Your task to perform on an android device: Open Yahoo.com Image 0: 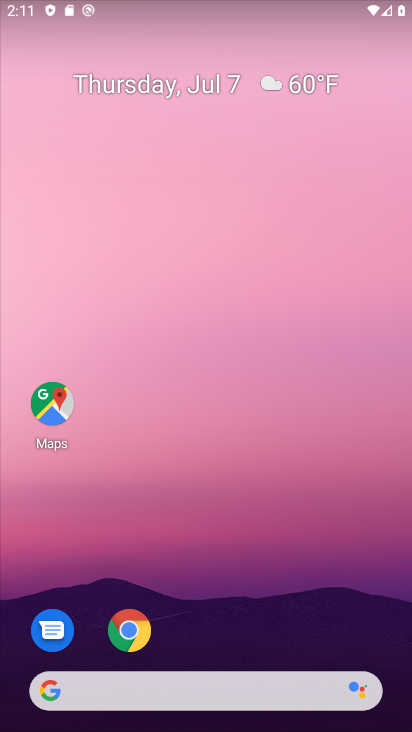
Step 0: drag from (168, 260) to (164, 105)
Your task to perform on an android device: Open Yahoo.com Image 1: 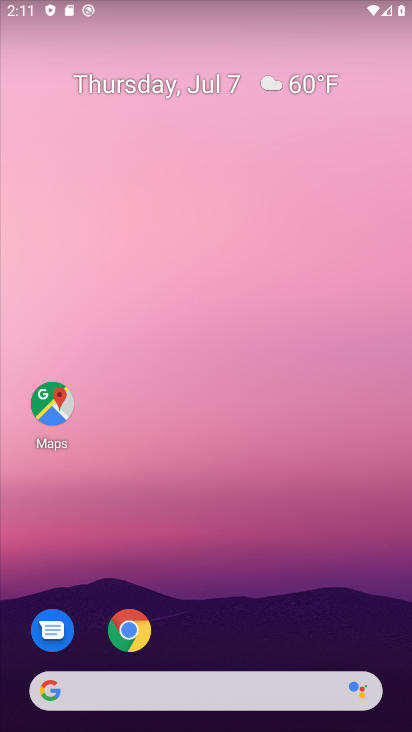
Step 1: drag from (212, 719) to (109, 51)
Your task to perform on an android device: Open Yahoo.com Image 2: 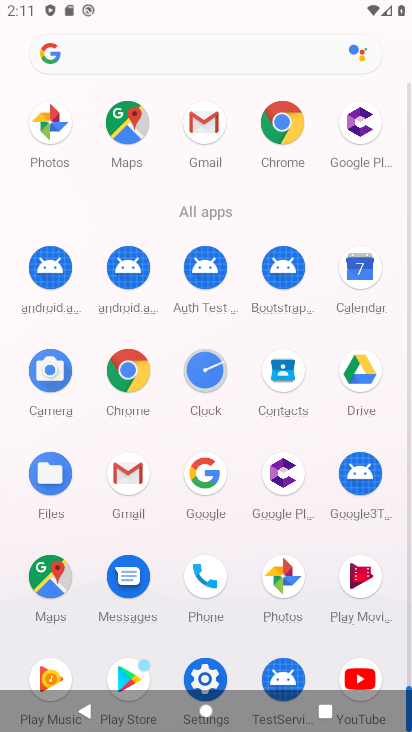
Step 2: click (287, 125)
Your task to perform on an android device: Open Yahoo.com Image 3: 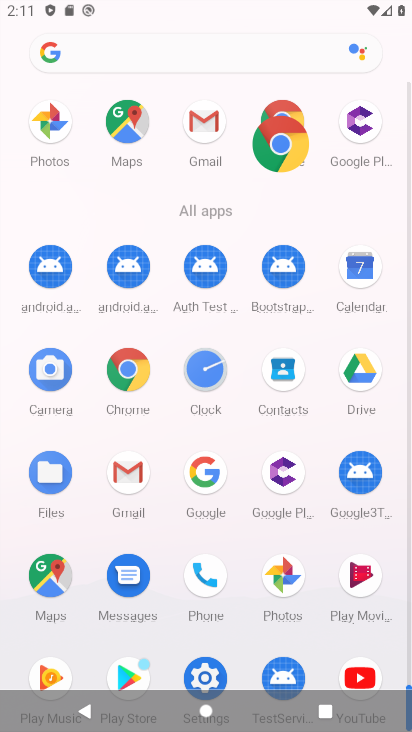
Step 3: click (287, 125)
Your task to perform on an android device: Open Yahoo.com Image 4: 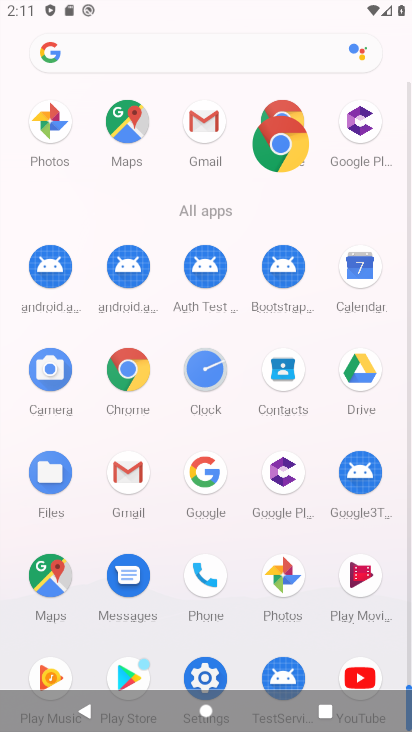
Step 4: click (288, 124)
Your task to perform on an android device: Open Yahoo.com Image 5: 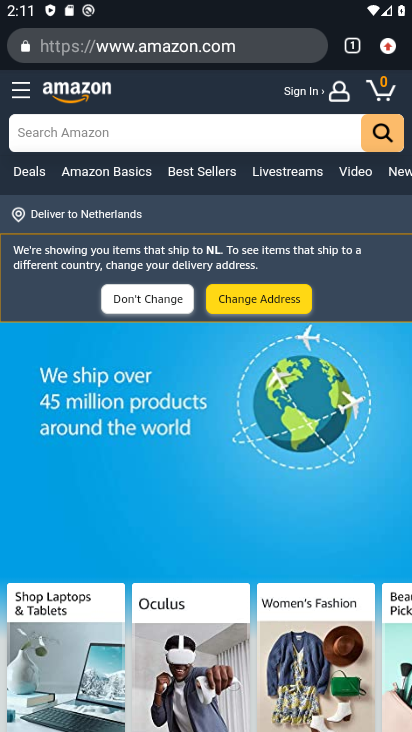
Step 5: click (28, 80)
Your task to perform on an android device: Open Yahoo.com Image 6: 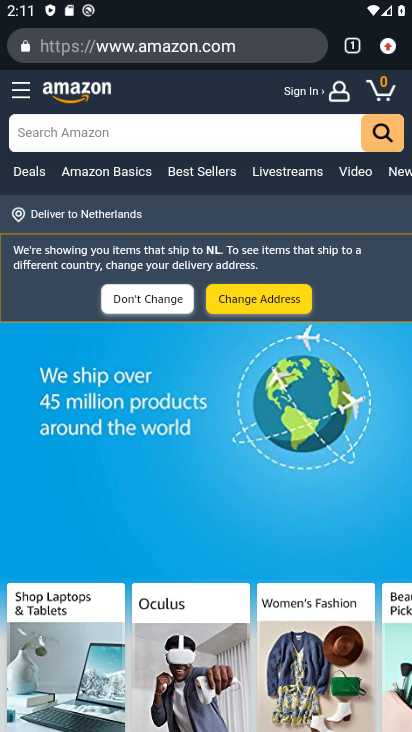
Step 6: click (27, 81)
Your task to perform on an android device: Open Yahoo.com Image 7: 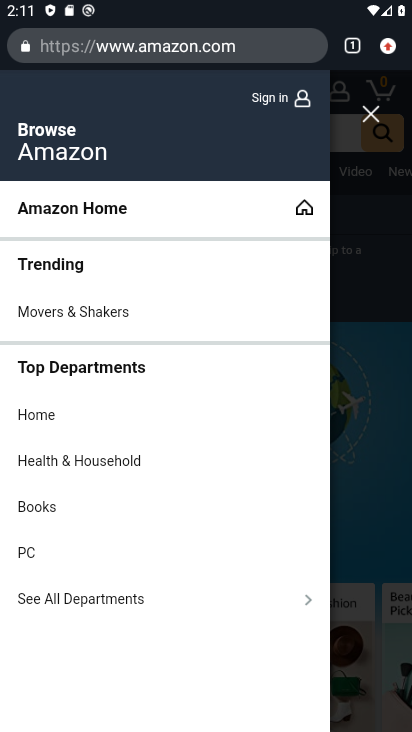
Step 7: drag from (371, 73) to (355, 693)
Your task to perform on an android device: Open Yahoo.com Image 8: 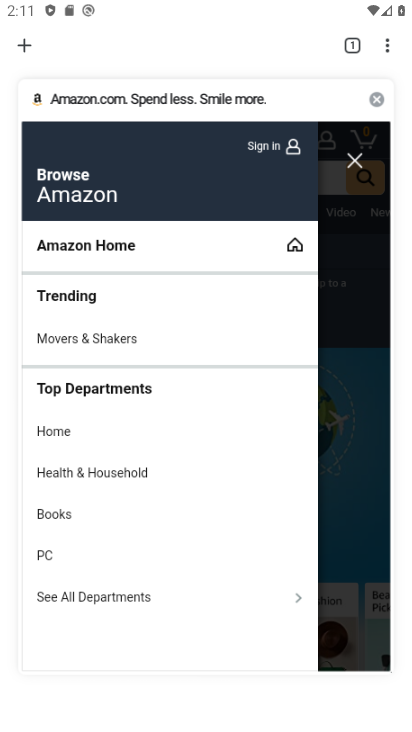
Step 8: click (354, 170)
Your task to perform on an android device: Open Yahoo.com Image 9: 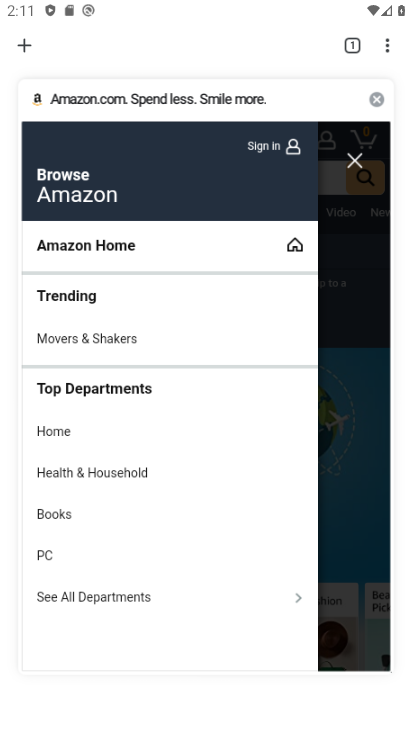
Step 9: click (353, 169)
Your task to perform on an android device: Open Yahoo.com Image 10: 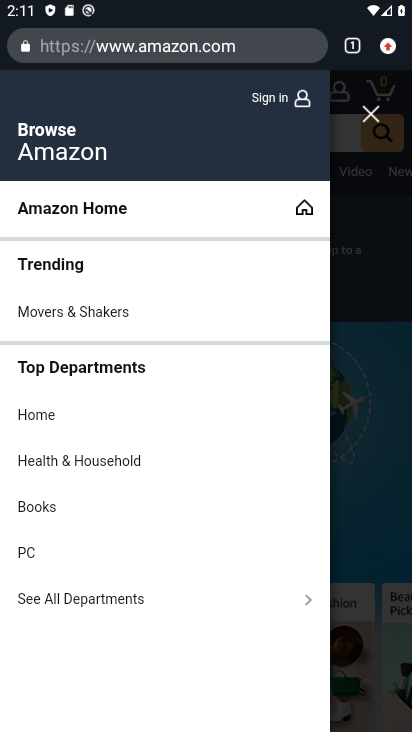
Step 10: click (362, 117)
Your task to perform on an android device: Open Yahoo.com Image 11: 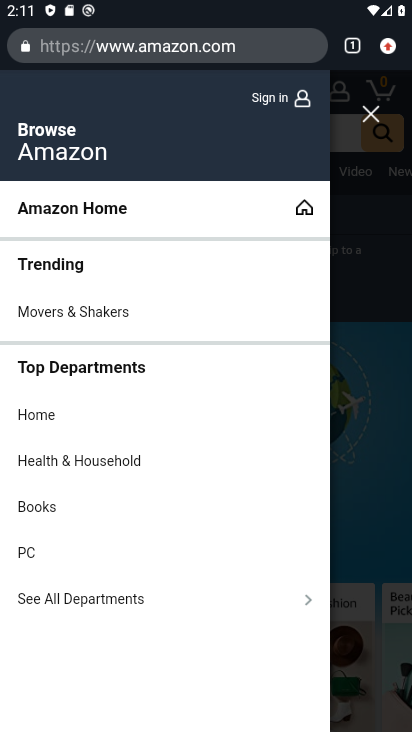
Step 11: click (363, 116)
Your task to perform on an android device: Open Yahoo.com Image 12: 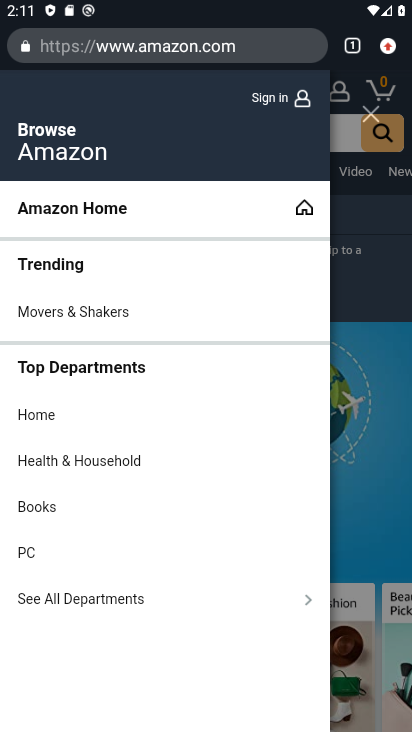
Step 12: click (364, 116)
Your task to perform on an android device: Open Yahoo.com Image 13: 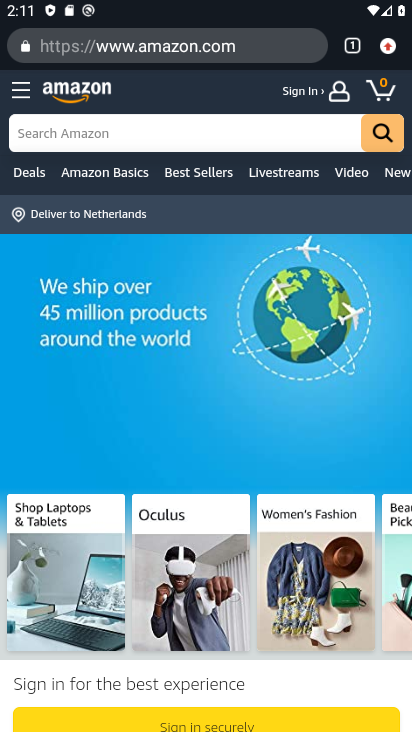
Step 13: click (389, 40)
Your task to perform on an android device: Open Yahoo.com Image 14: 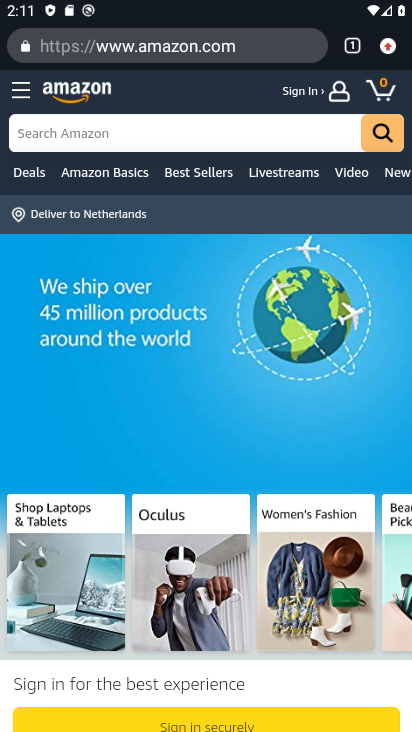
Step 14: click (388, 39)
Your task to perform on an android device: Open Yahoo.com Image 15: 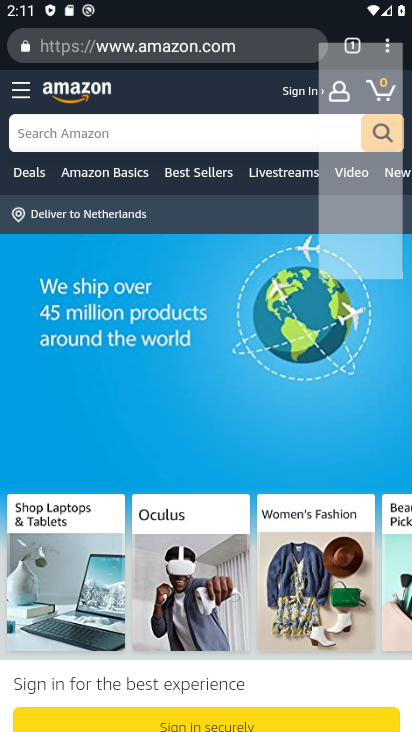
Step 15: click (387, 39)
Your task to perform on an android device: Open Yahoo.com Image 16: 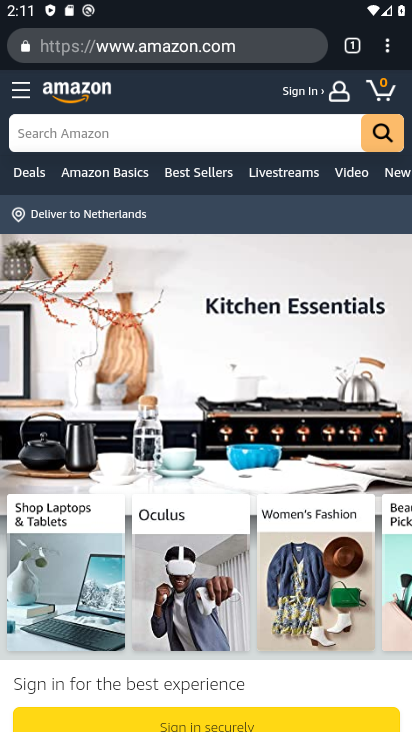
Step 16: click (387, 42)
Your task to perform on an android device: Open Yahoo.com Image 17: 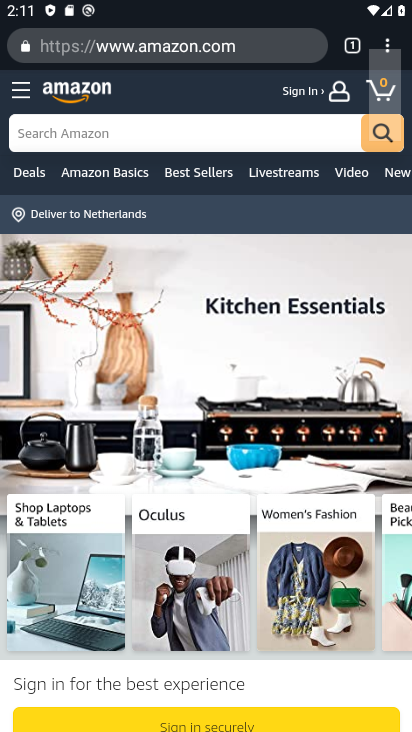
Step 17: click (394, 35)
Your task to perform on an android device: Open Yahoo.com Image 18: 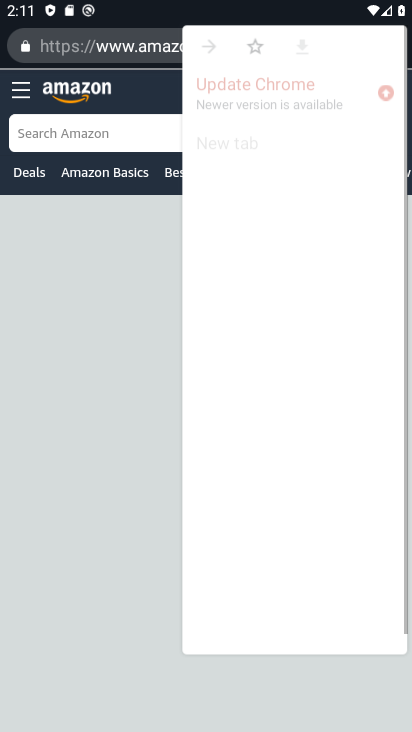
Step 18: click (394, 35)
Your task to perform on an android device: Open Yahoo.com Image 19: 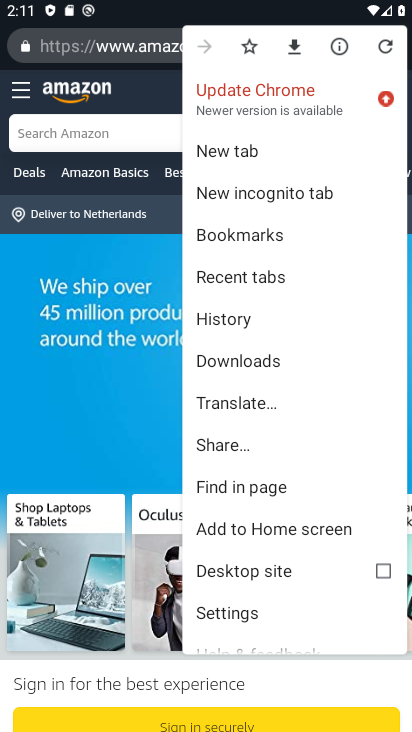
Step 19: click (237, 157)
Your task to perform on an android device: Open Yahoo.com Image 20: 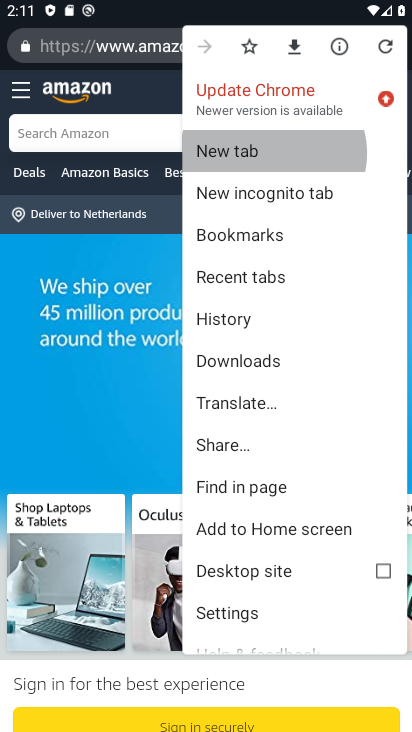
Step 20: click (237, 157)
Your task to perform on an android device: Open Yahoo.com Image 21: 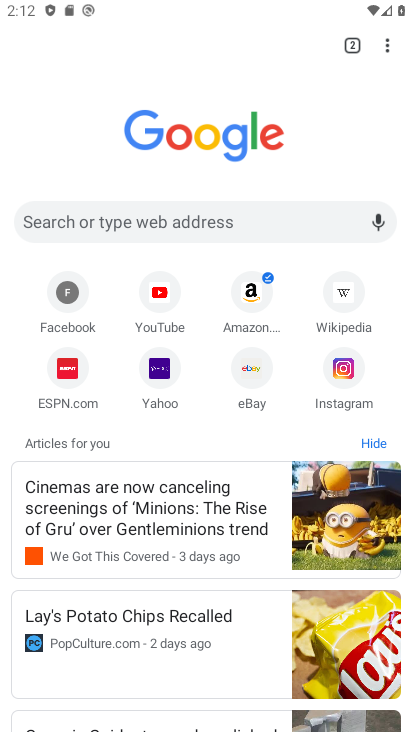
Step 21: click (162, 371)
Your task to perform on an android device: Open Yahoo.com Image 22: 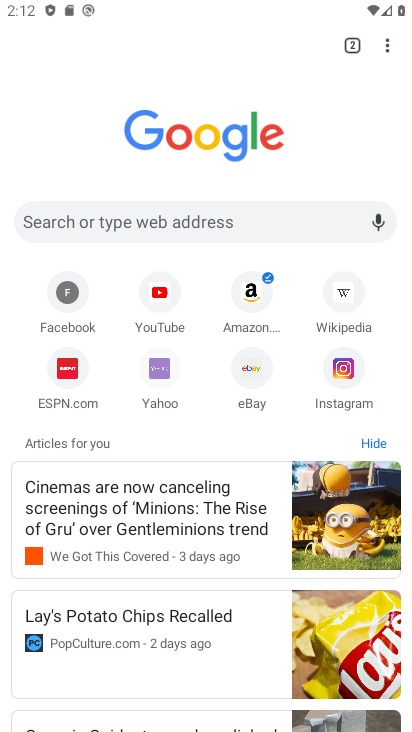
Step 22: click (162, 371)
Your task to perform on an android device: Open Yahoo.com Image 23: 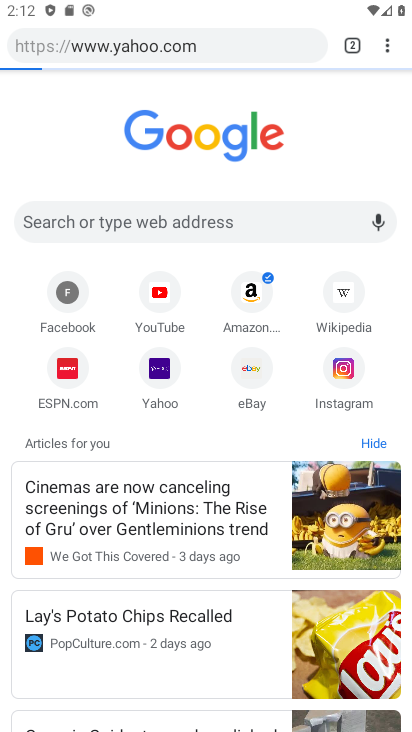
Step 23: click (162, 371)
Your task to perform on an android device: Open Yahoo.com Image 24: 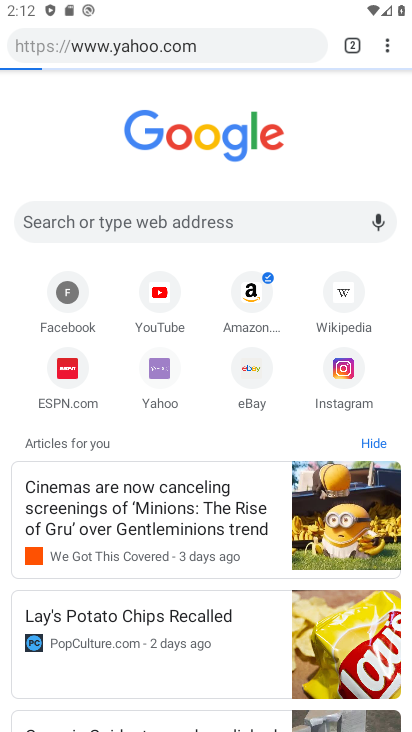
Step 24: click (164, 374)
Your task to perform on an android device: Open Yahoo.com Image 25: 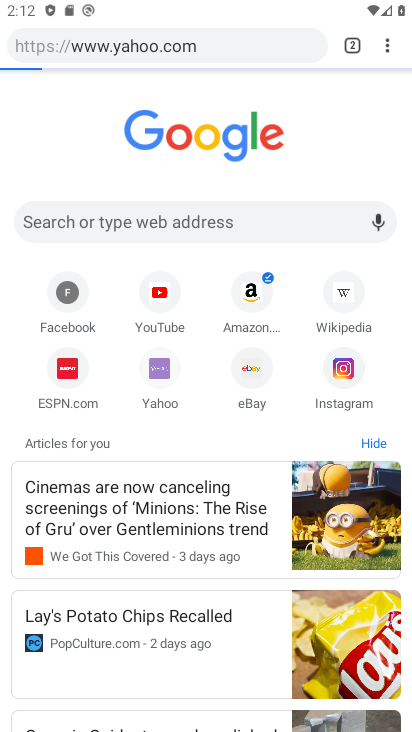
Step 25: click (165, 373)
Your task to perform on an android device: Open Yahoo.com Image 26: 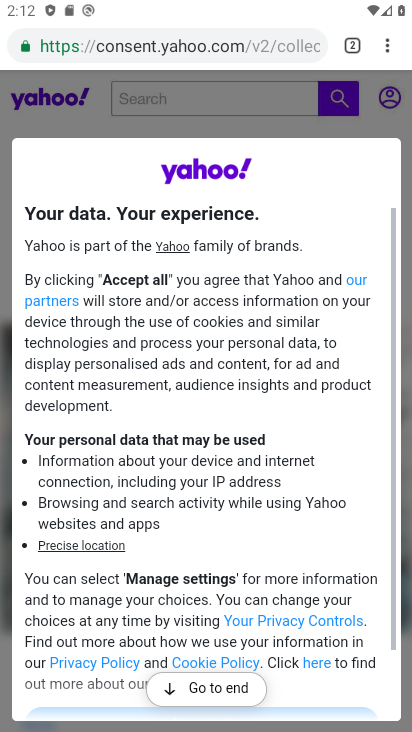
Step 26: task complete